Your task to perform on an android device: Open Google Maps Image 0: 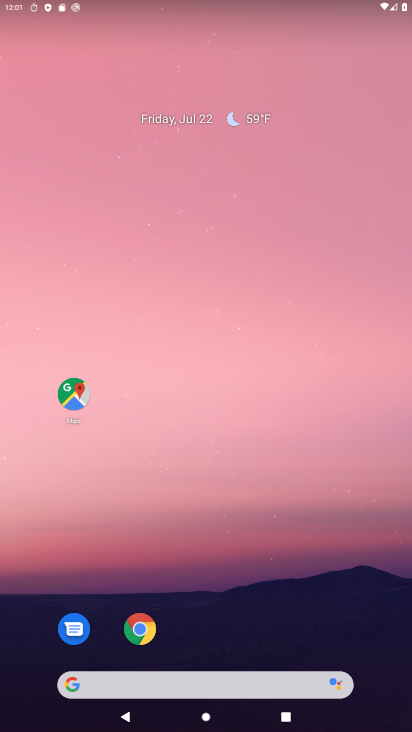
Step 0: drag from (193, 688) to (310, 97)
Your task to perform on an android device: Open Google Maps Image 1: 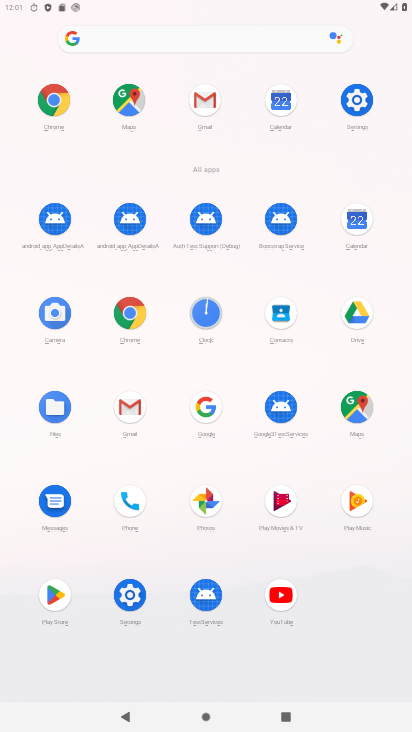
Step 1: click (355, 404)
Your task to perform on an android device: Open Google Maps Image 2: 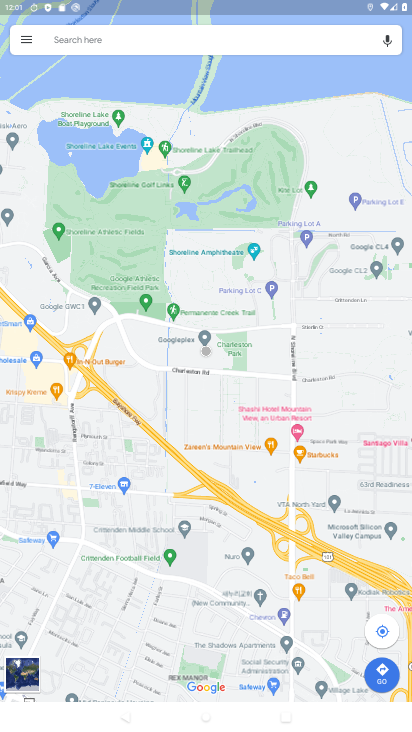
Step 2: task complete